Your task to perform on an android device: toggle sleep mode Image 0: 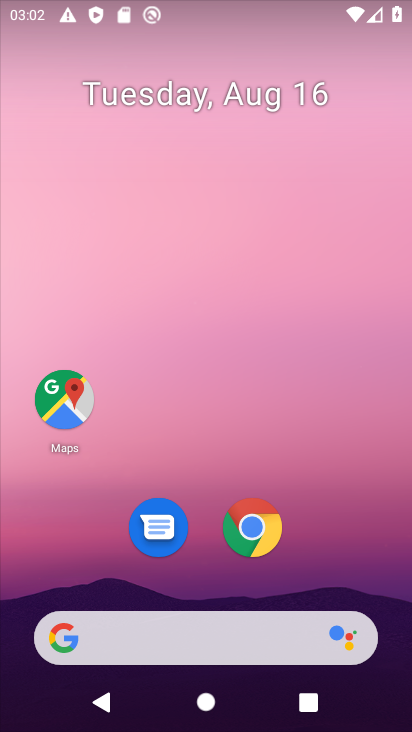
Step 0: press home button
Your task to perform on an android device: toggle sleep mode Image 1: 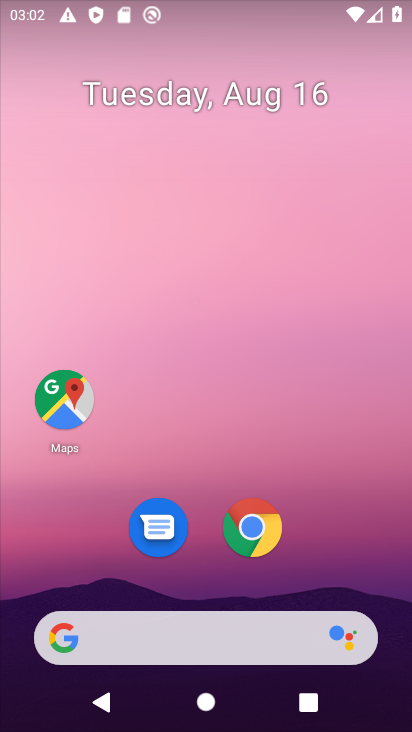
Step 1: drag from (205, 581) to (269, 70)
Your task to perform on an android device: toggle sleep mode Image 2: 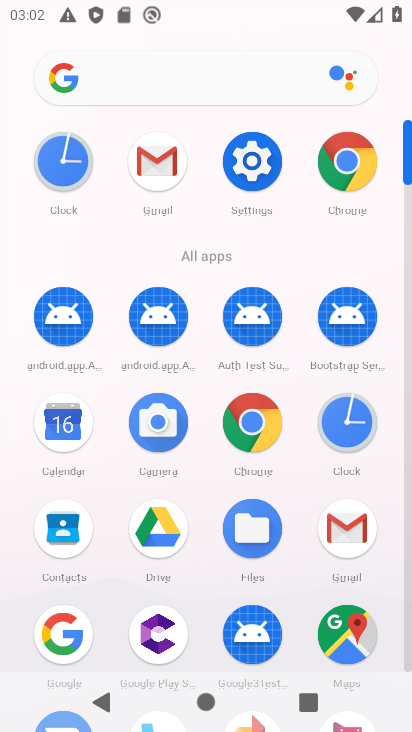
Step 2: click (251, 152)
Your task to perform on an android device: toggle sleep mode Image 3: 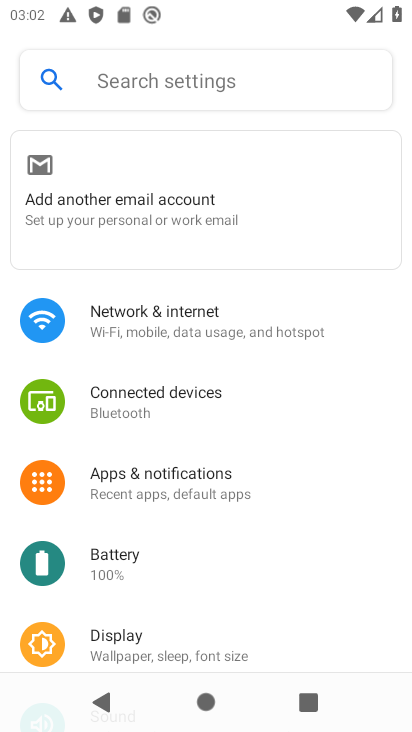
Step 3: click (175, 630)
Your task to perform on an android device: toggle sleep mode Image 4: 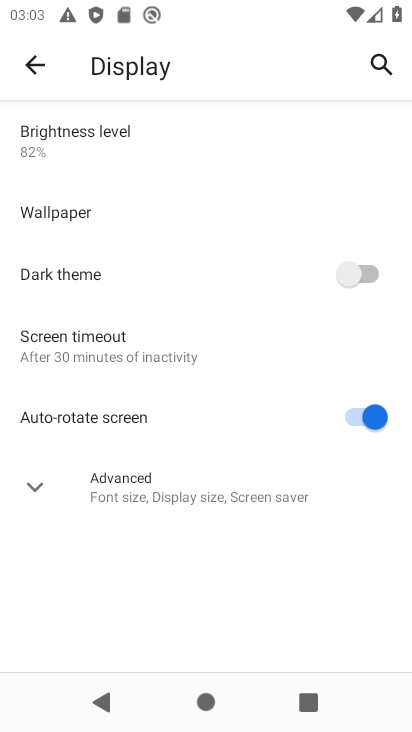
Step 4: click (23, 474)
Your task to perform on an android device: toggle sleep mode Image 5: 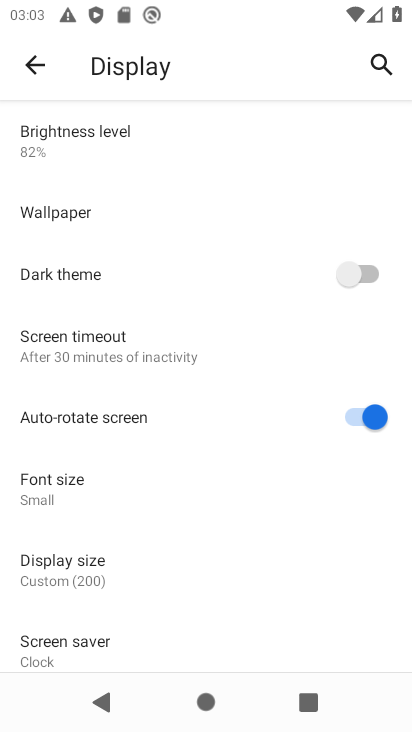
Step 5: task complete